Your task to perform on an android device: Open notification settings Image 0: 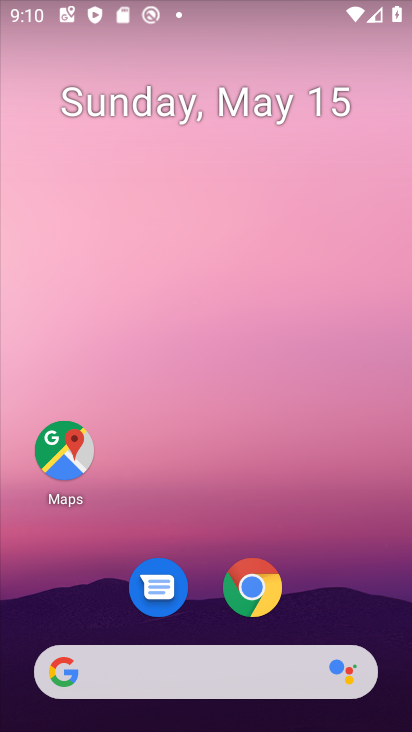
Step 0: drag from (395, 644) to (267, 44)
Your task to perform on an android device: Open notification settings Image 1: 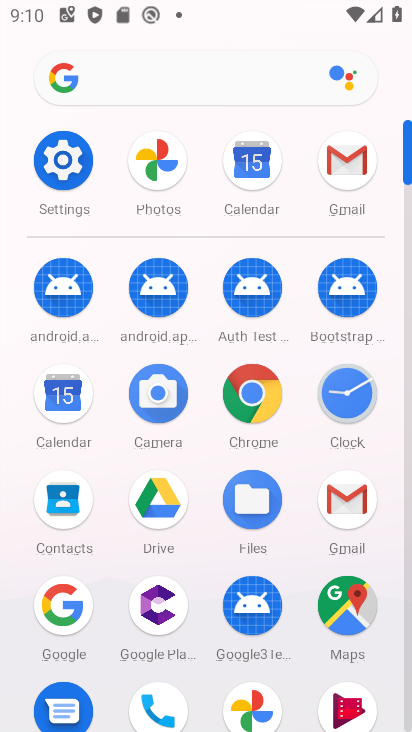
Step 1: click (49, 162)
Your task to perform on an android device: Open notification settings Image 2: 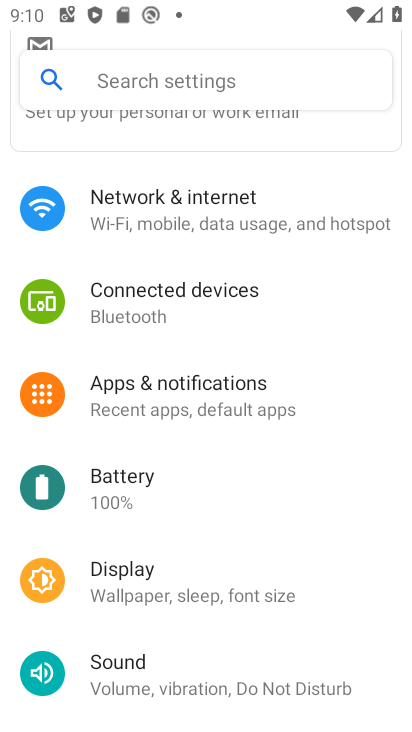
Step 2: click (226, 379)
Your task to perform on an android device: Open notification settings Image 3: 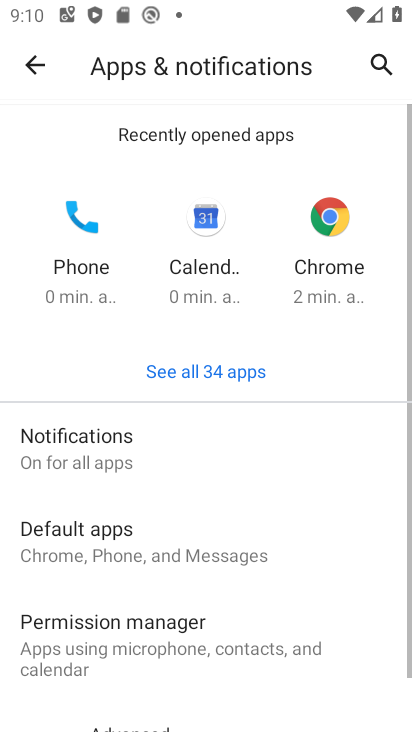
Step 3: click (127, 465)
Your task to perform on an android device: Open notification settings Image 4: 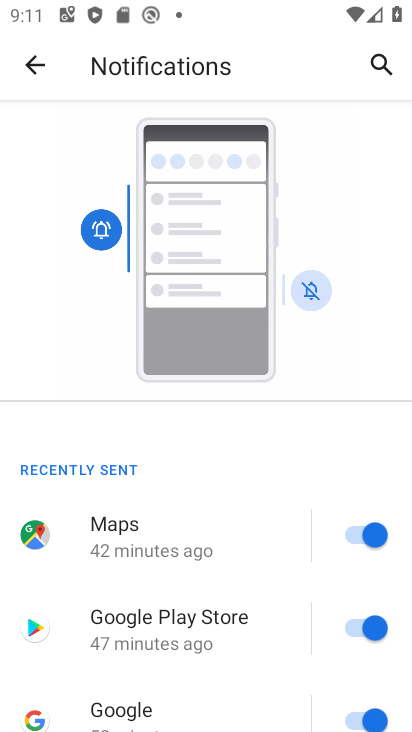
Step 4: task complete